Your task to perform on an android device: star an email in the gmail app Image 0: 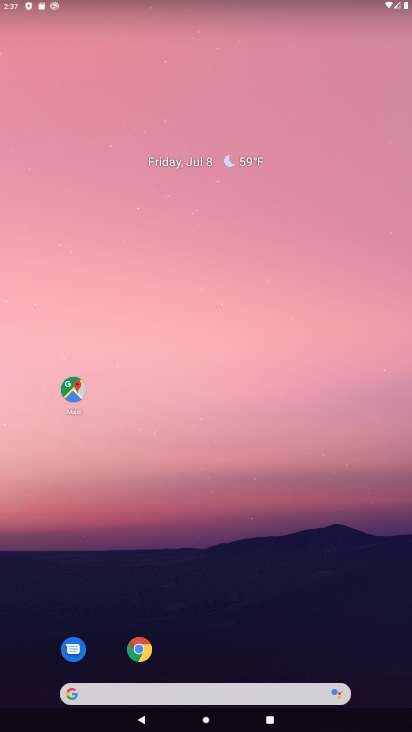
Step 0: drag from (331, 599) to (168, 107)
Your task to perform on an android device: star an email in the gmail app Image 1: 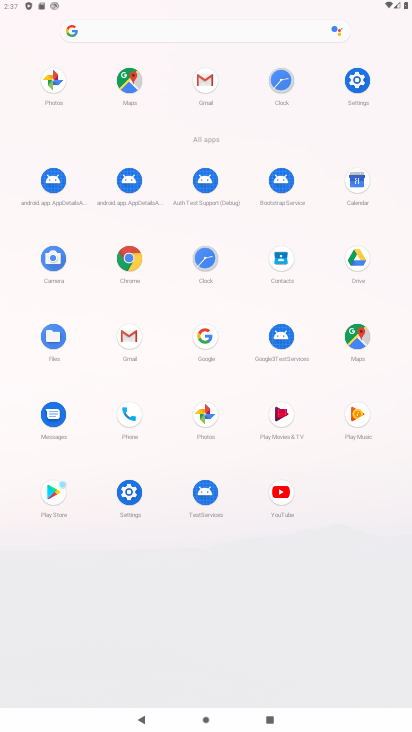
Step 1: click (201, 80)
Your task to perform on an android device: star an email in the gmail app Image 2: 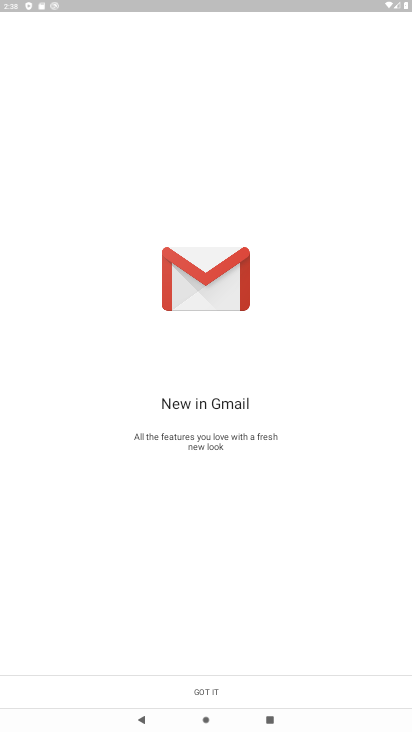
Step 2: click (218, 687)
Your task to perform on an android device: star an email in the gmail app Image 3: 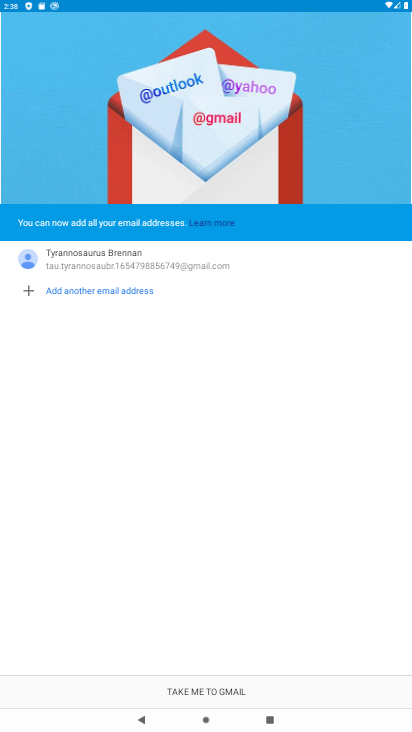
Step 3: click (195, 693)
Your task to perform on an android device: star an email in the gmail app Image 4: 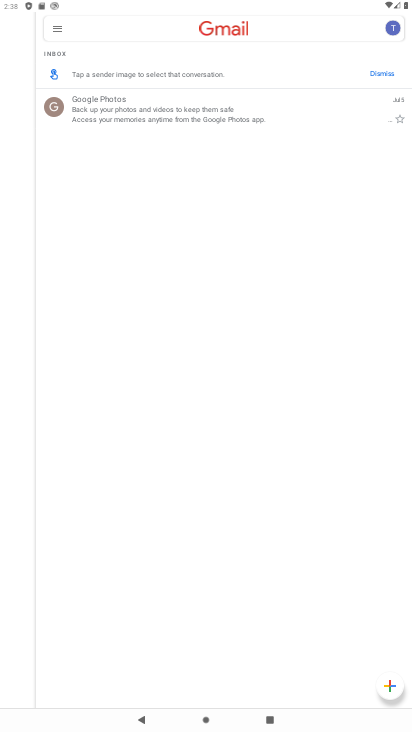
Step 4: click (60, 21)
Your task to perform on an android device: star an email in the gmail app Image 5: 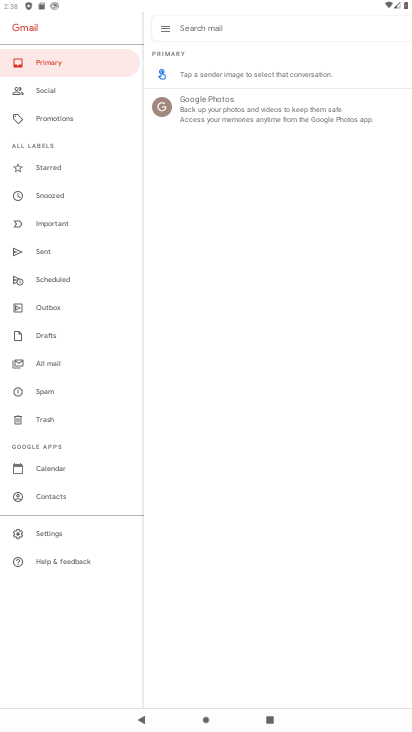
Step 5: click (53, 362)
Your task to perform on an android device: star an email in the gmail app Image 6: 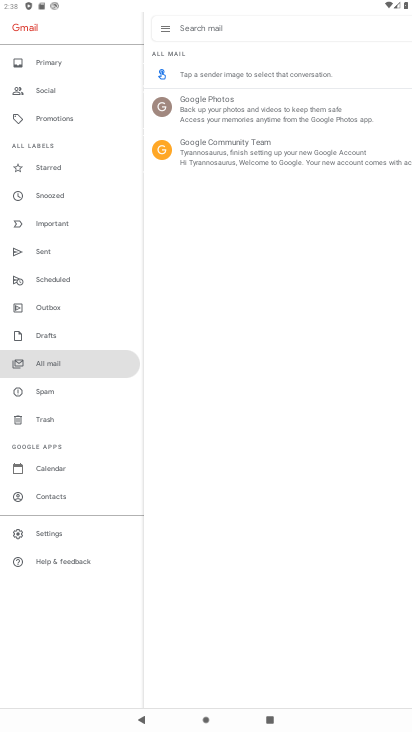
Step 6: click (277, 115)
Your task to perform on an android device: star an email in the gmail app Image 7: 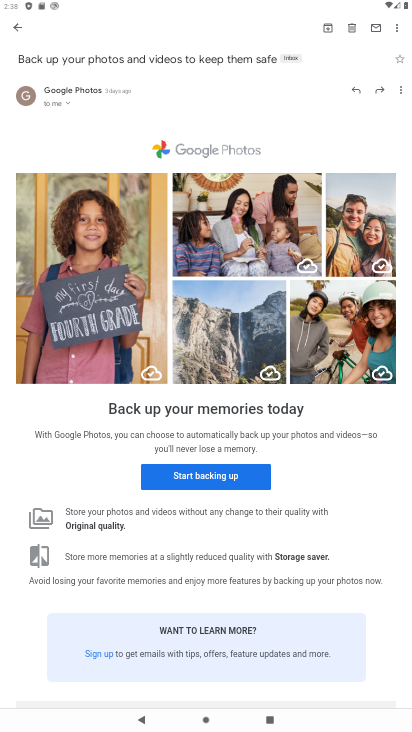
Step 7: click (403, 55)
Your task to perform on an android device: star an email in the gmail app Image 8: 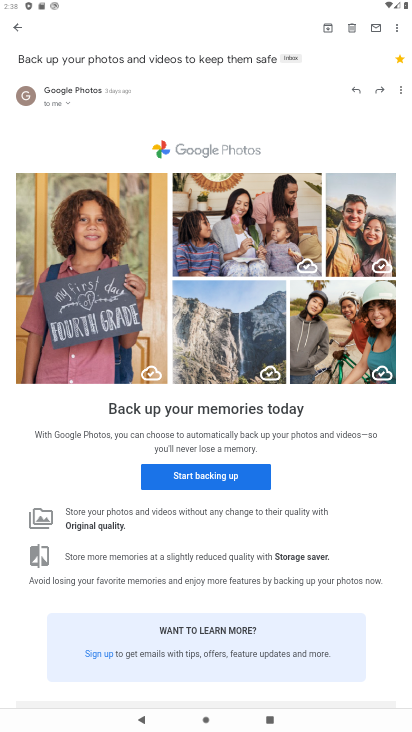
Step 8: task complete